Your task to perform on an android device: toggle data saver in the chrome app Image 0: 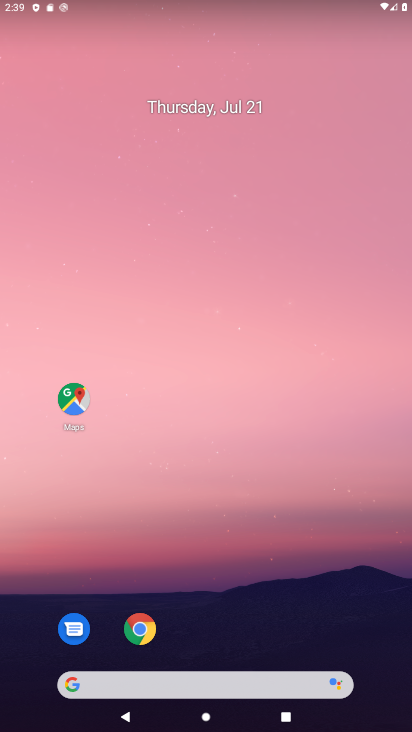
Step 0: click (141, 627)
Your task to perform on an android device: toggle data saver in the chrome app Image 1: 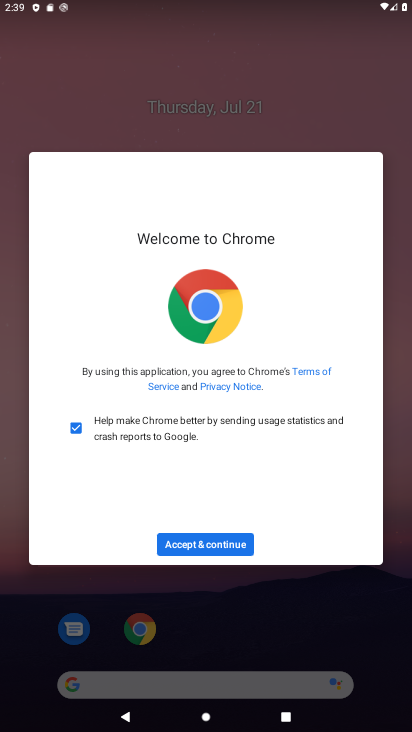
Step 1: click (216, 545)
Your task to perform on an android device: toggle data saver in the chrome app Image 2: 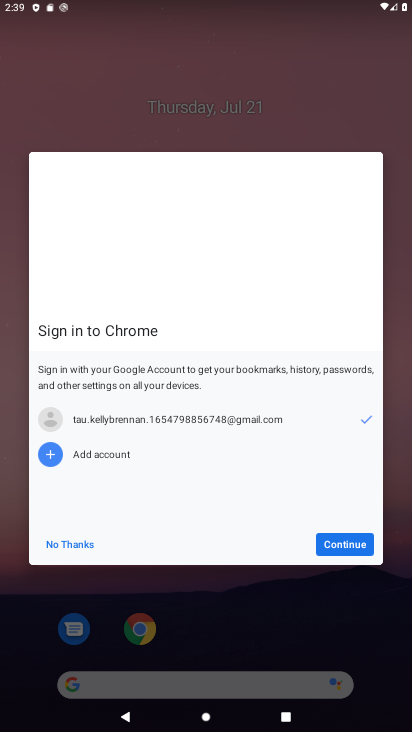
Step 2: click (329, 546)
Your task to perform on an android device: toggle data saver in the chrome app Image 3: 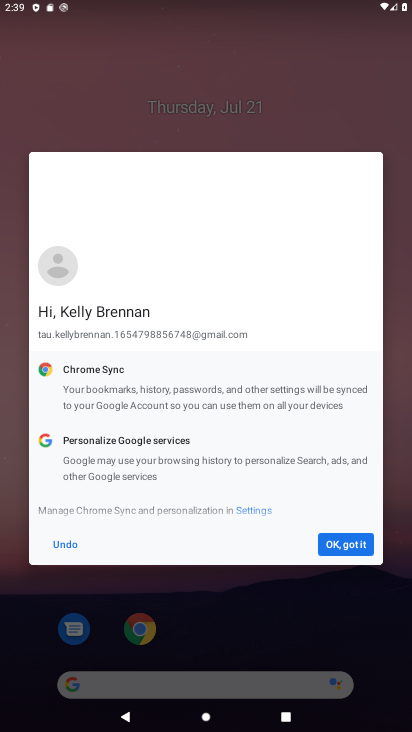
Step 3: click (329, 546)
Your task to perform on an android device: toggle data saver in the chrome app Image 4: 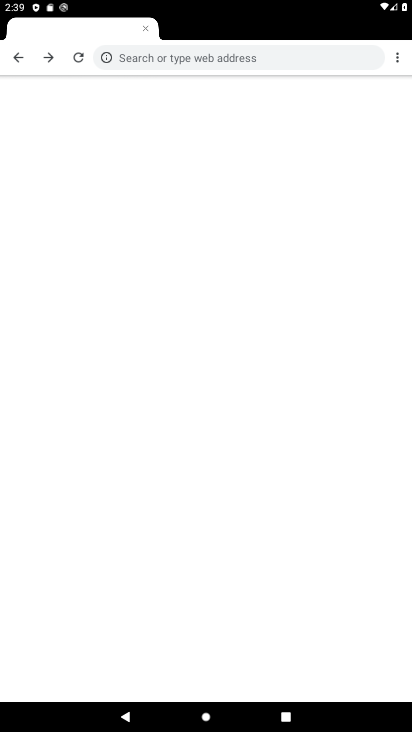
Step 4: click (392, 61)
Your task to perform on an android device: toggle data saver in the chrome app Image 5: 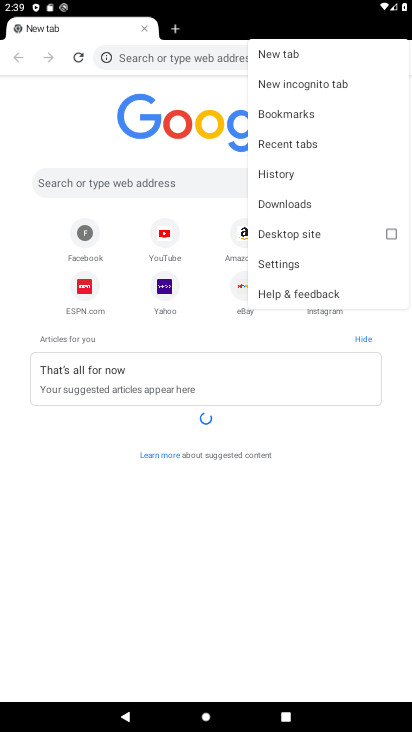
Step 5: click (278, 260)
Your task to perform on an android device: toggle data saver in the chrome app Image 6: 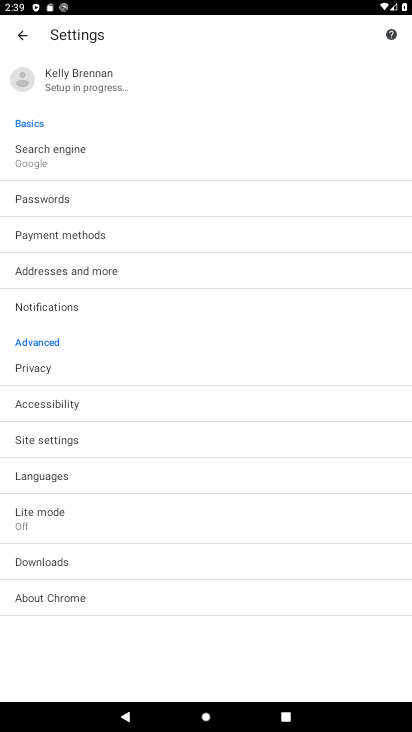
Step 6: click (41, 508)
Your task to perform on an android device: toggle data saver in the chrome app Image 7: 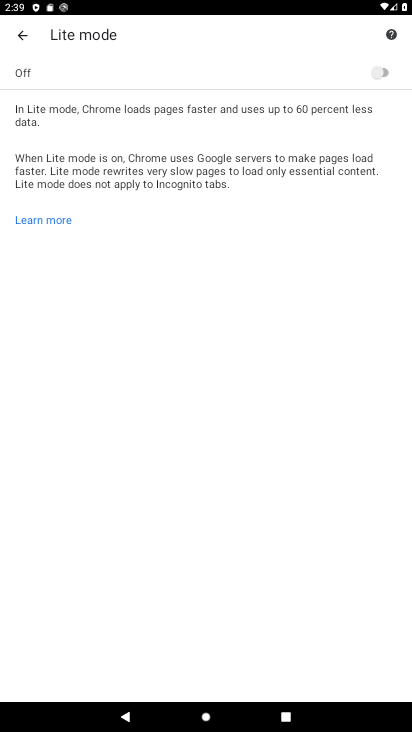
Step 7: click (372, 75)
Your task to perform on an android device: toggle data saver in the chrome app Image 8: 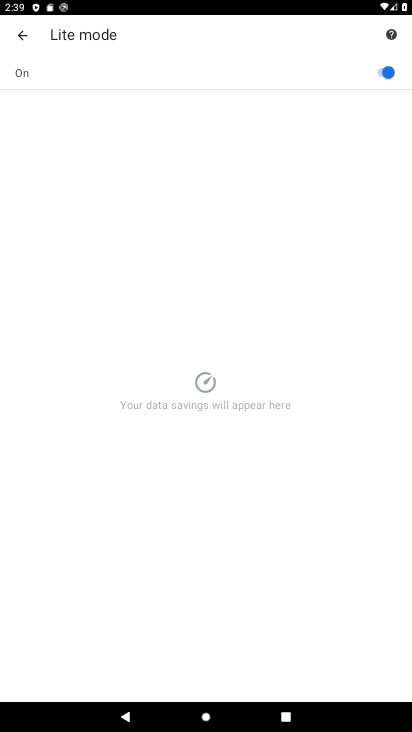
Step 8: task complete